Your task to perform on an android device: turn off notifications in google photos Image 0: 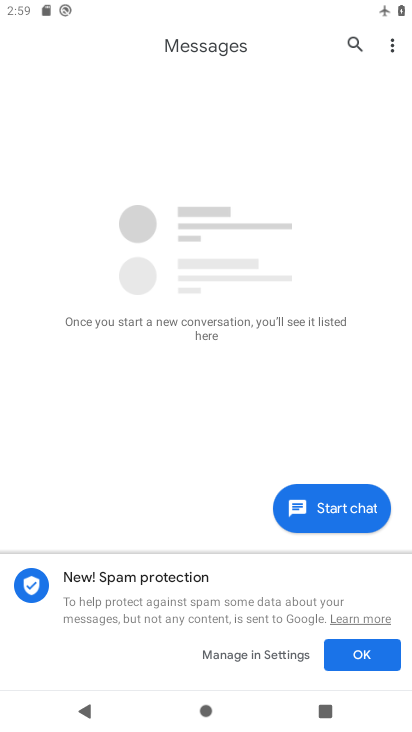
Step 0: press home button
Your task to perform on an android device: turn off notifications in google photos Image 1: 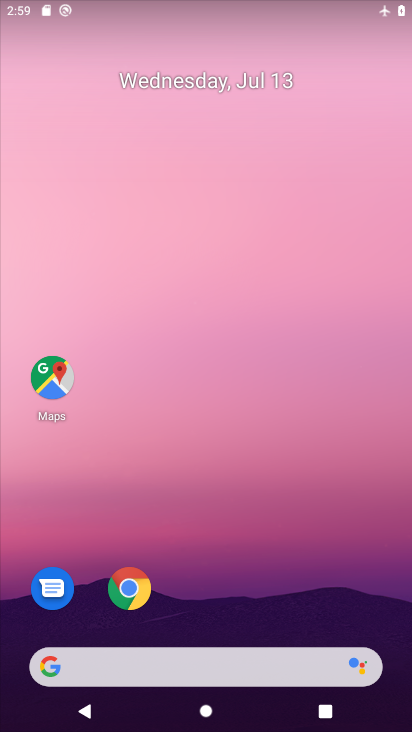
Step 1: drag from (225, 633) to (230, 0)
Your task to perform on an android device: turn off notifications in google photos Image 2: 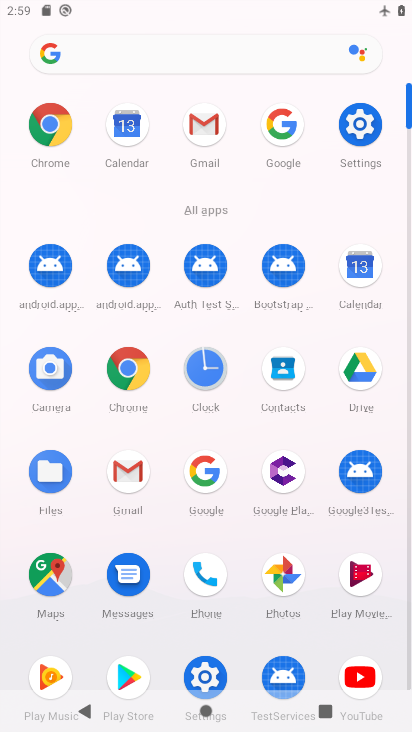
Step 2: click (280, 575)
Your task to perform on an android device: turn off notifications in google photos Image 3: 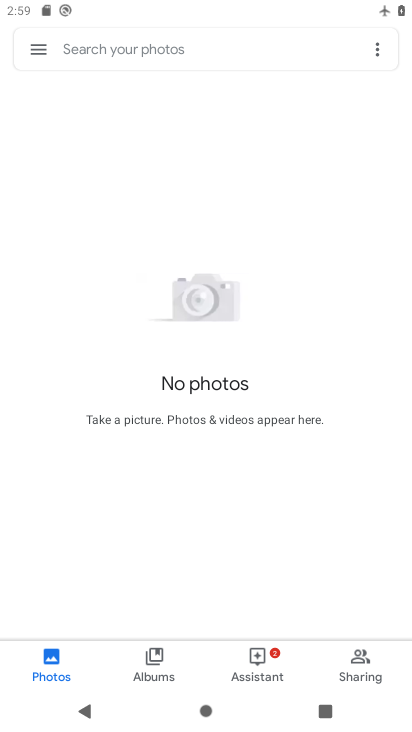
Step 3: click (37, 39)
Your task to perform on an android device: turn off notifications in google photos Image 4: 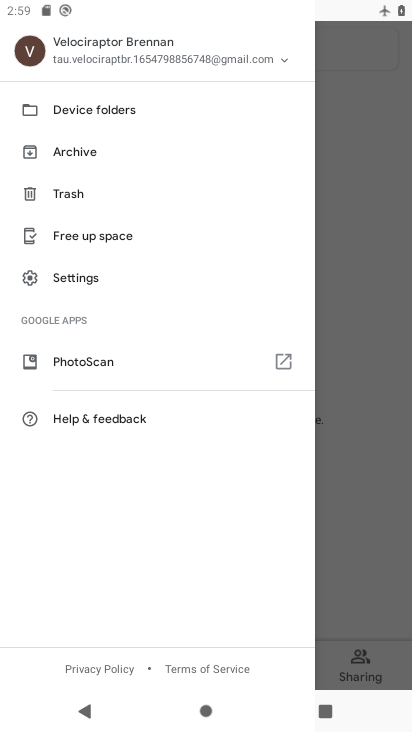
Step 4: click (71, 280)
Your task to perform on an android device: turn off notifications in google photos Image 5: 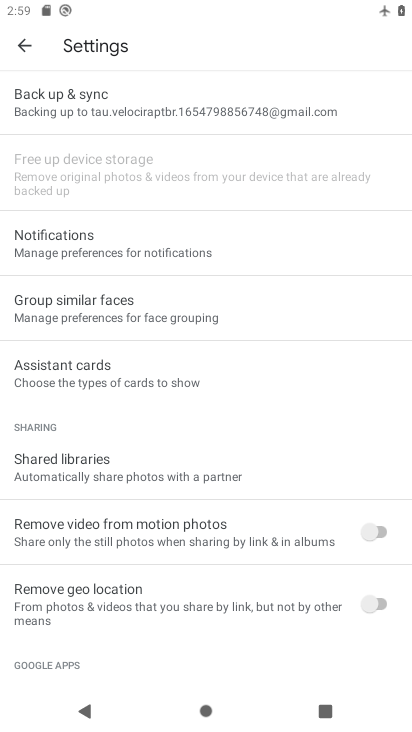
Step 5: click (72, 249)
Your task to perform on an android device: turn off notifications in google photos Image 6: 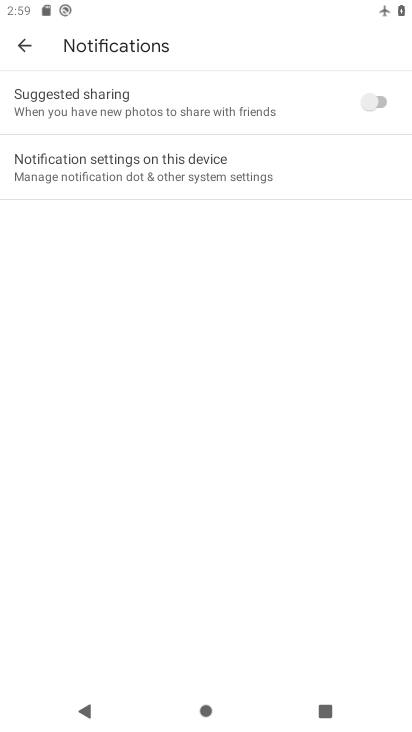
Step 6: click (293, 169)
Your task to perform on an android device: turn off notifications in google photos Image 7: 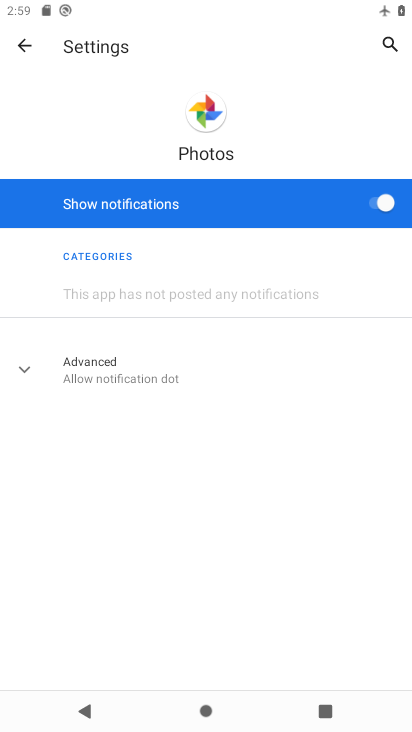
Step 7: click (377, 206)
Your task to perform on an android device: turn off notifications in google photos Image 8: 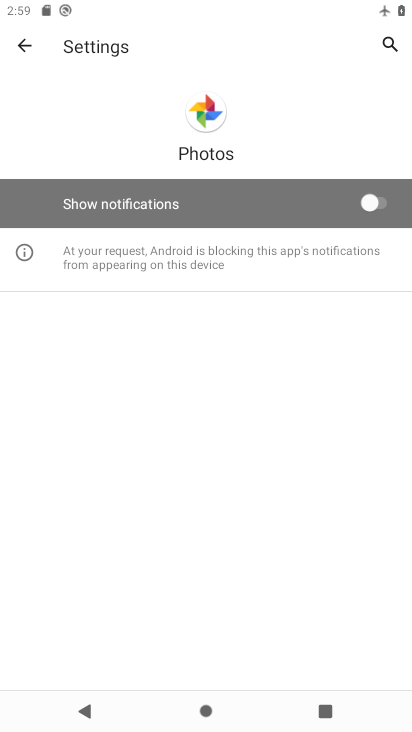
Step 8: task complete